Your task to perform on an android device: install app "HBO Max: Stream TV & Movies" Image 0: 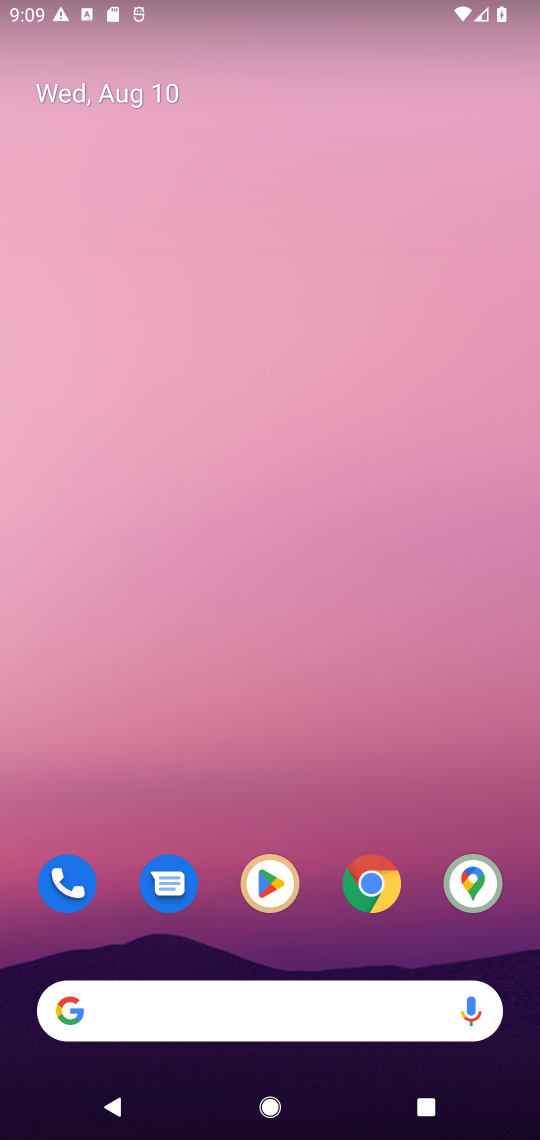
Step 0: drag from (318, 774) to (329, 152)
Your task to perform on an android device: install app "HBO Max: Stream TV & Movies" Image 1: 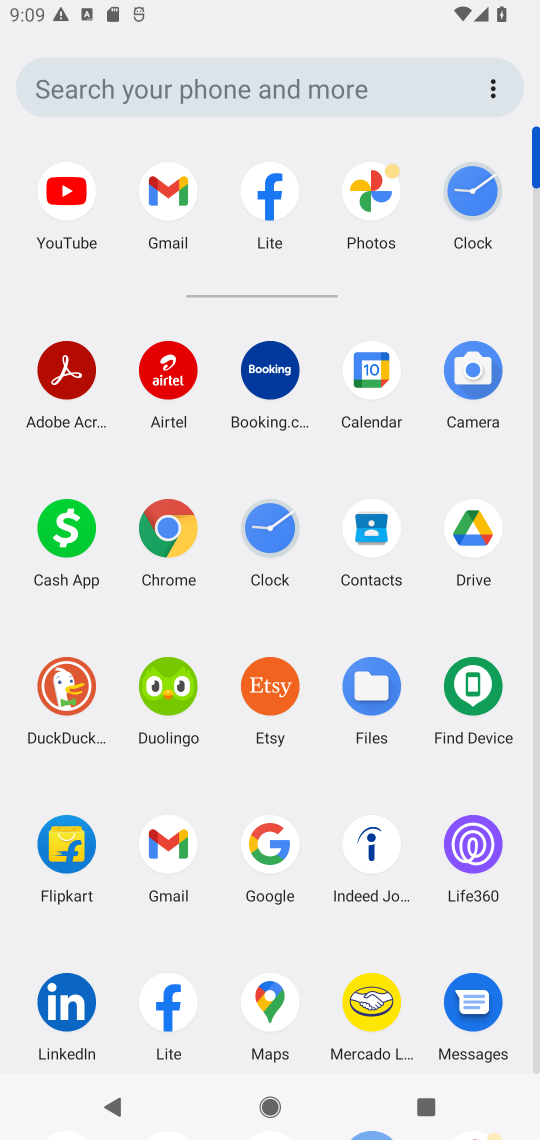
Step 1: drag from (275, 796) to (298, 503)
Your task to perform on an android device: install app "HBO Max: Stream TV & Movies" Image 2: 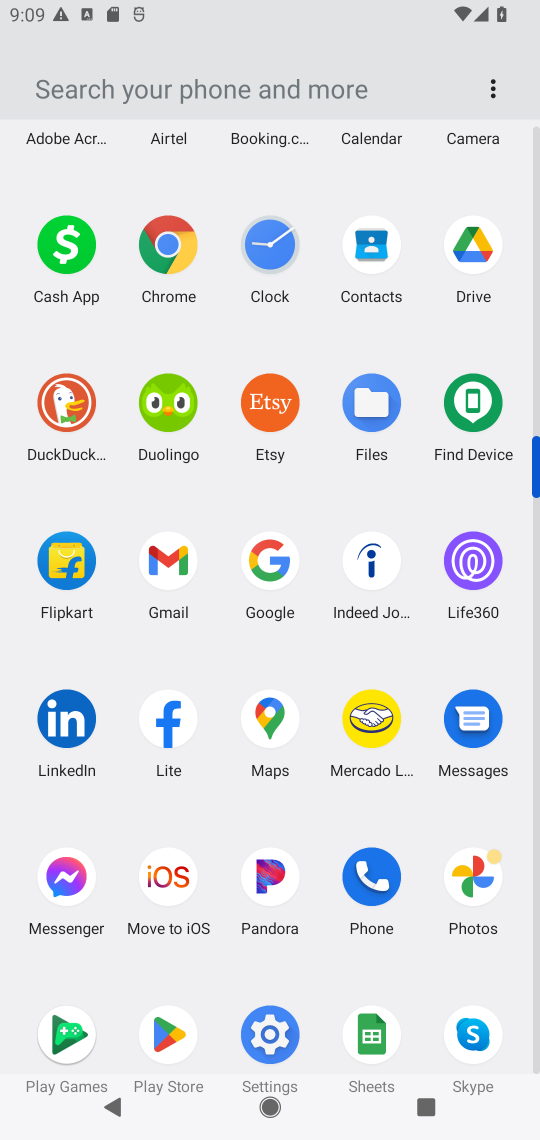
Step 2: click (170, 1034)
Your task to perform on an android device: install app "HBO Max: Stream TV & Movies" Image 3: 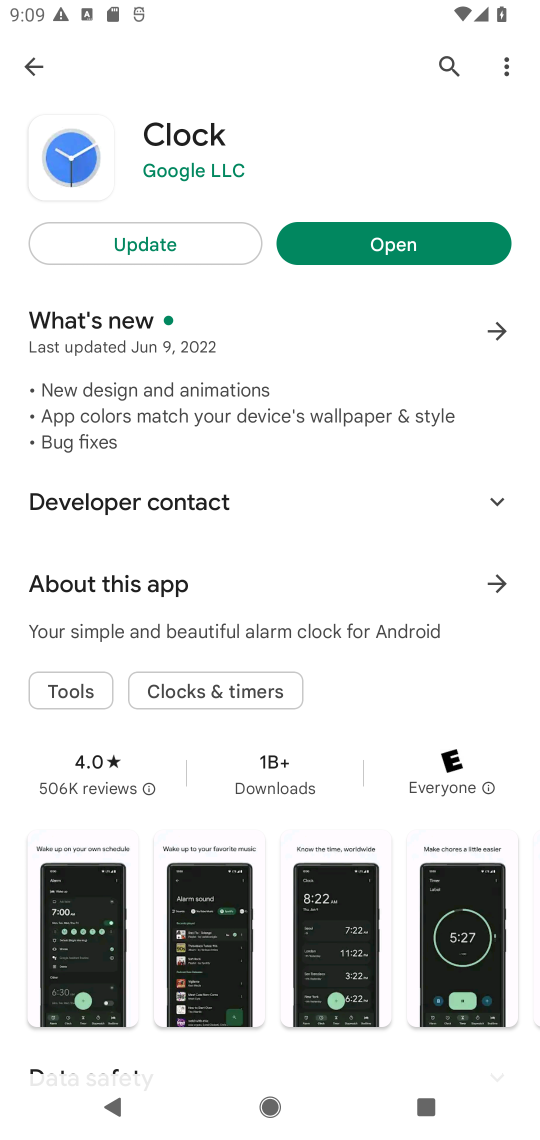
Step 3: click (446, 48)
Your task to perform on an android device: install app "HBO Max: Stream TV & Movies" Image 4: 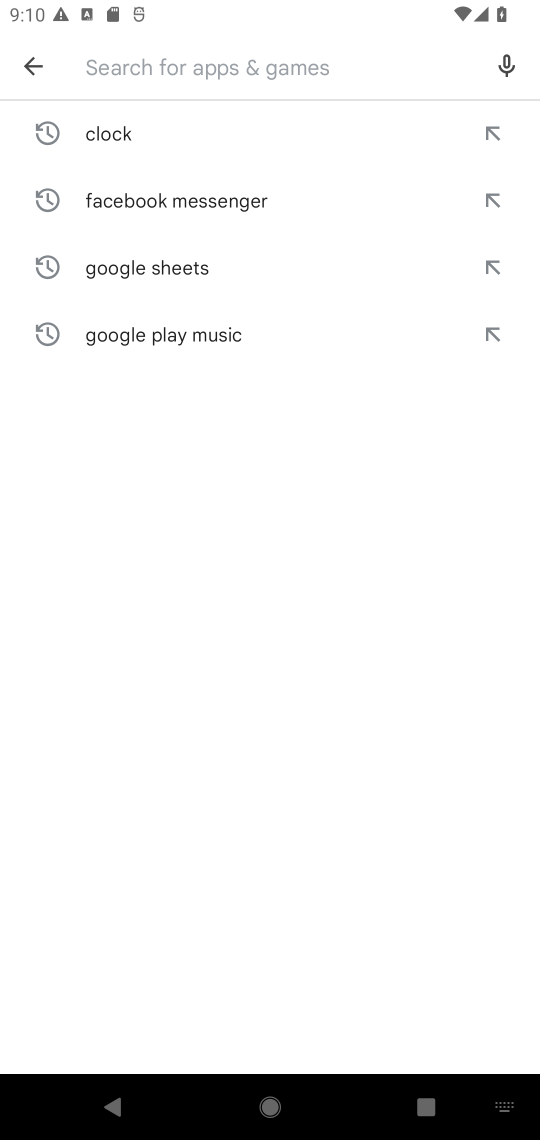
Step 4: type "HBO Max: Stream TV & Movies"
Your task to perform on an android device: install app "HBO Max: Stream TV & Movies" Image 5: 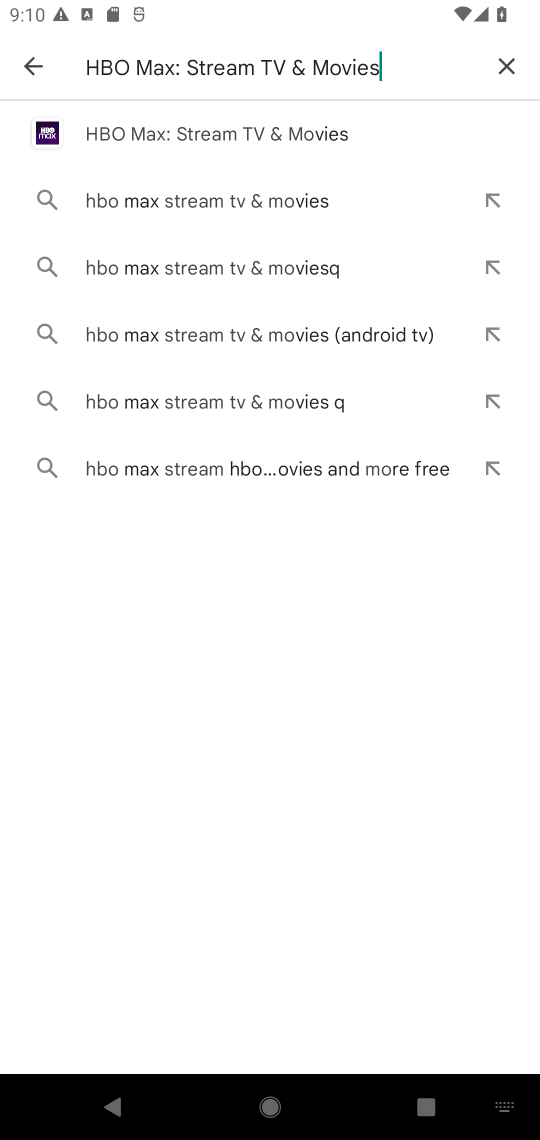
Step 5: type ""
Your task to perform on an android device: install app "HBO Max: Stream TV & Movies" Image 6: 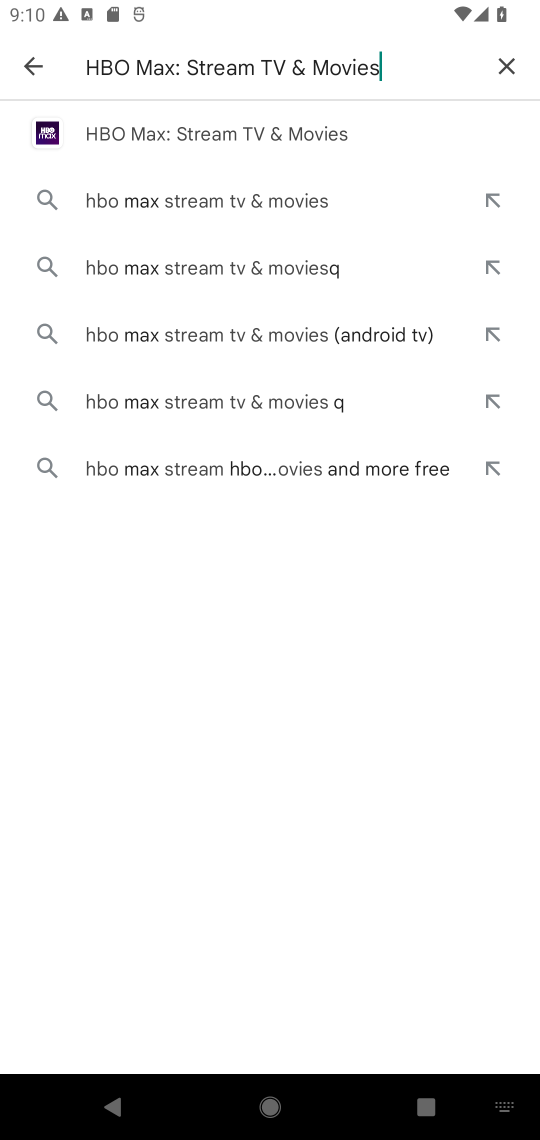
Step 6: click (217, 127)
Your task to perform on an android device: install app "HBO Max: Stream TV & Movies" Image 7: 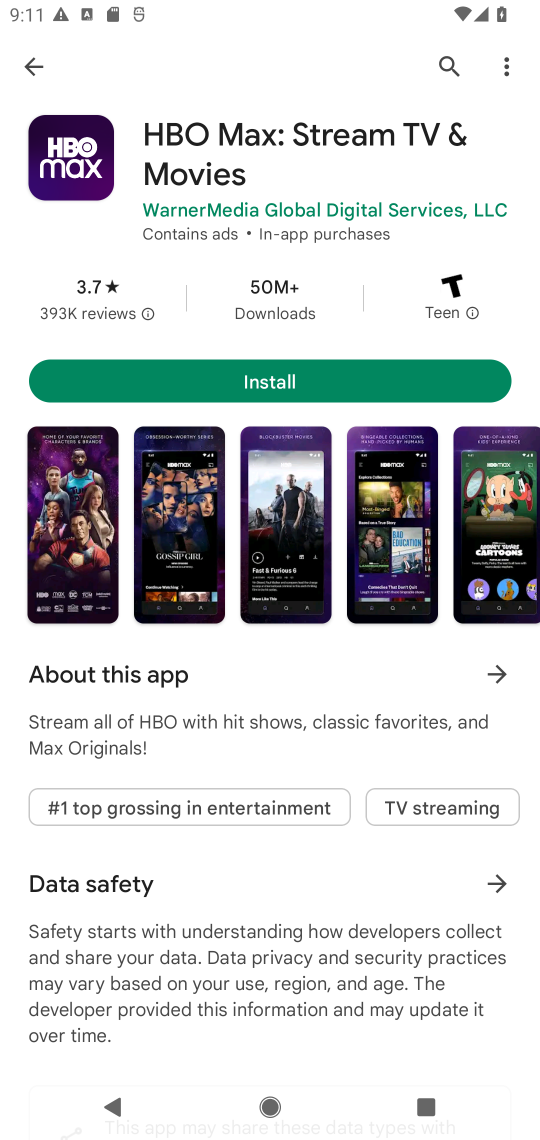
Step 7: click (298, 383)
Your task to perform on an android device: install app "HBO Max: Stream TV & Movies" Image 8: 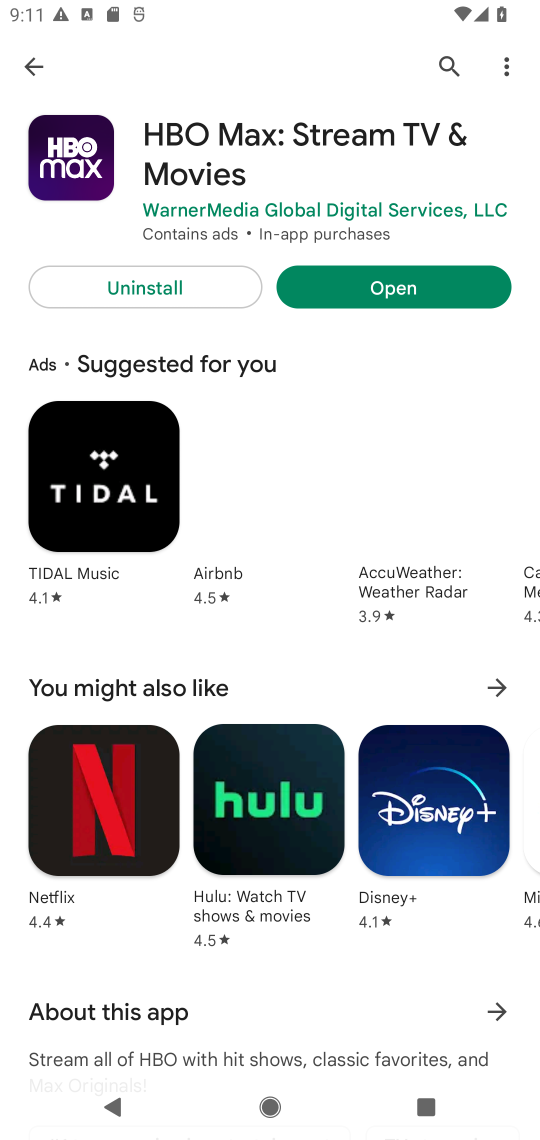
Step 8: task complete